Your task to perform on an android device: Do I have any events tomorrow? Image 0: 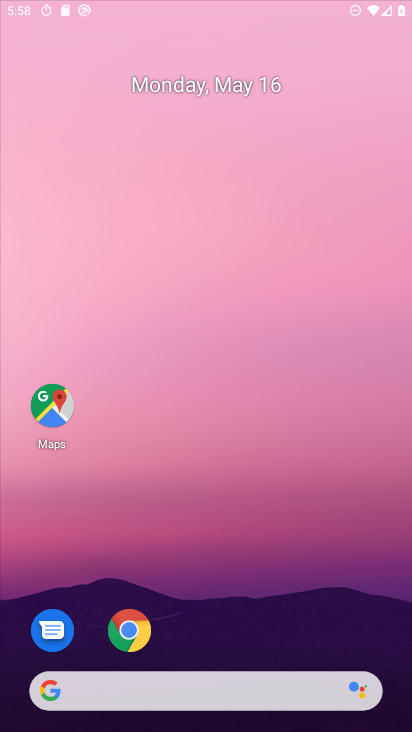
Step 0: press home button
Your task to perform on an android device: Do I have any events tomorrow? Image 1: 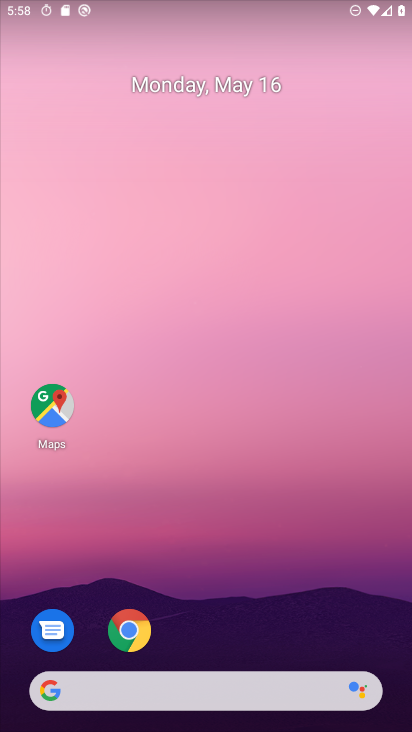
Step 1: drag from (269, 592) to (319, 60)
Your task to perform on an android device: Do I have any events tomorrow? Image 2: 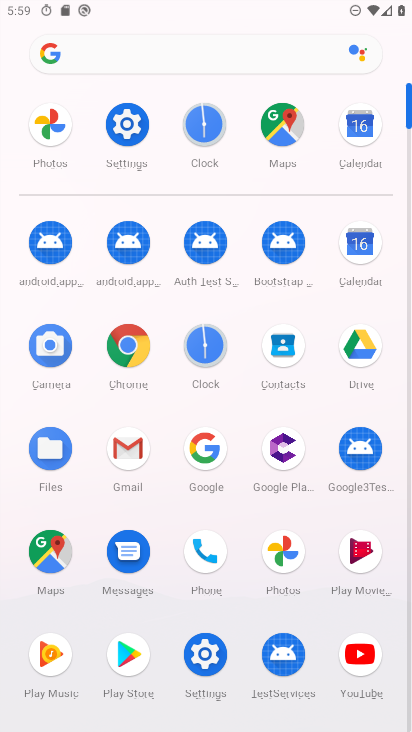
Step 2: click (143, 128)
Your task to perform on an android device: Do I have any events tomorrow? Image 3: 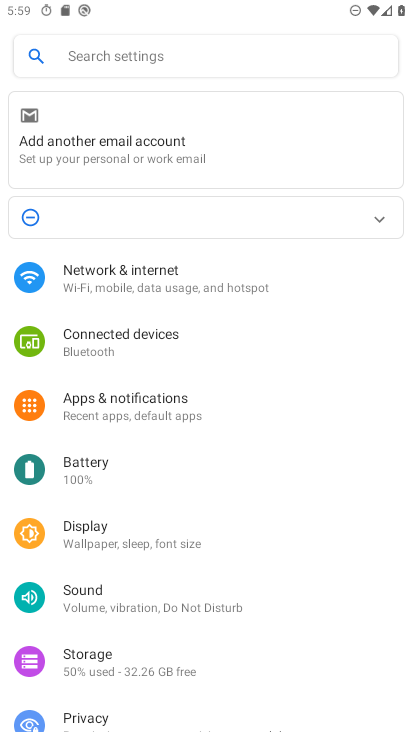
Step 3: press home button
Your task to perform on an android device: Do I have any events tomorrow? Image 4: 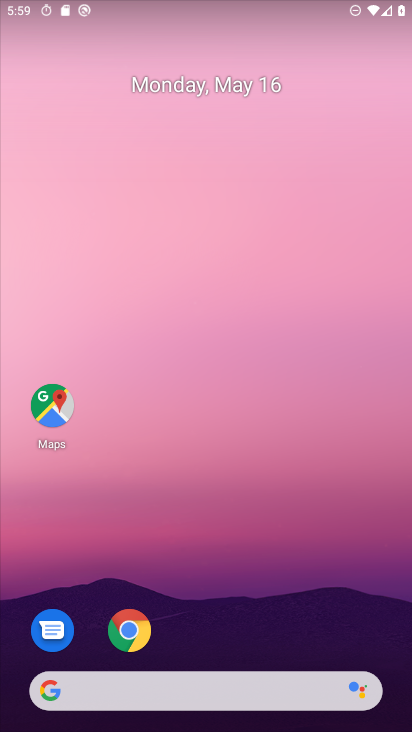
Step 4: drag from (264, 558) to (269, 50)
Your task to perform on an android device: Do I have any events tomorrow? Image 5: 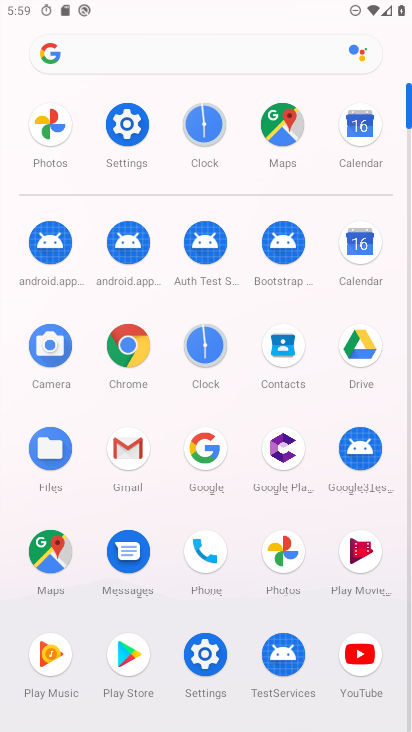
Step 5: click (358, 233)
Your task to perform on an android device: Do I have any events tomorrow? Image 6: 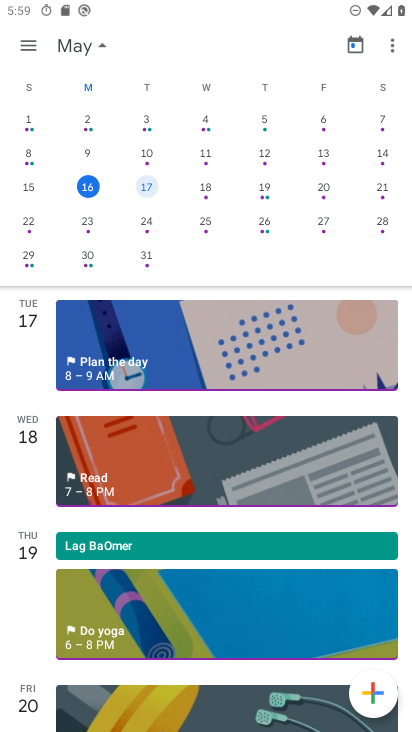
Step 6: click (103, 40)
Your task to perform on an android device: Do I have any events tomorrow? Image 7: 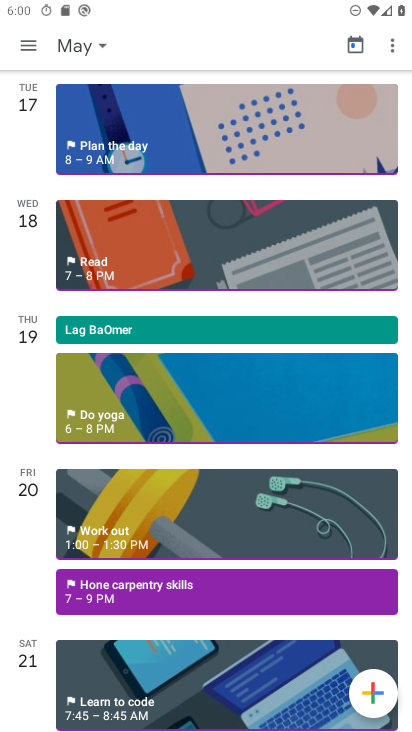
Step 7: task complete